Your task to perform on an android device: What's the weather? Image 0: 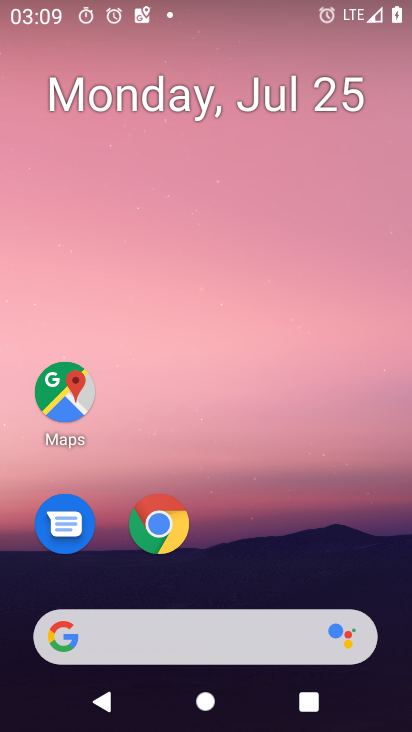
Step 0: drag from (256, 593) to (269, 16)
Your task to perform on an android device: What's the weather? Image 1: 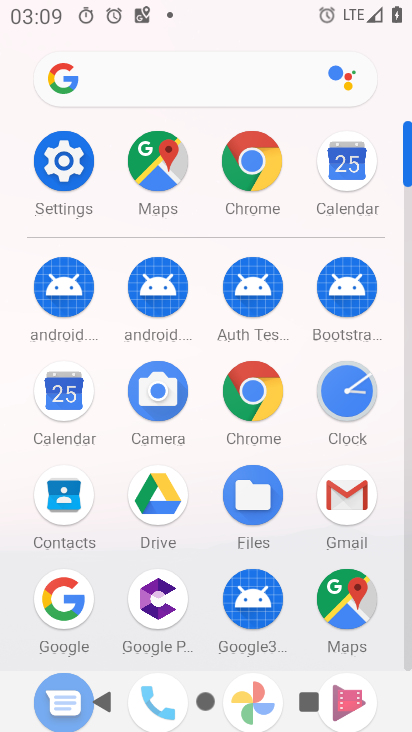
Step 1: click (61, 598)
Your task to perform on an android device: What's the weather? Image 2: 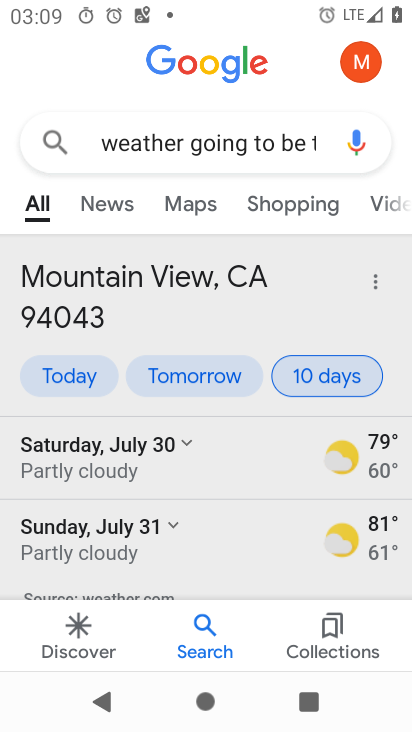
Step 2: click (302, 139)
Your task to perform on an android device: What's the weather? Image 3: 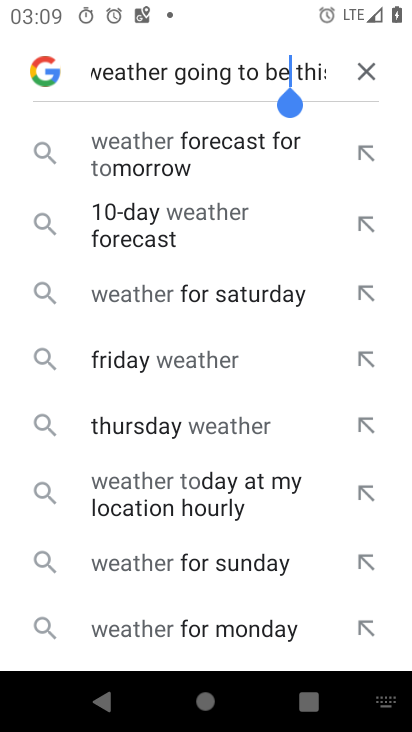
Step 3: click (366, 69)
Your task to perform on an android device: What's the weather? Image 4: 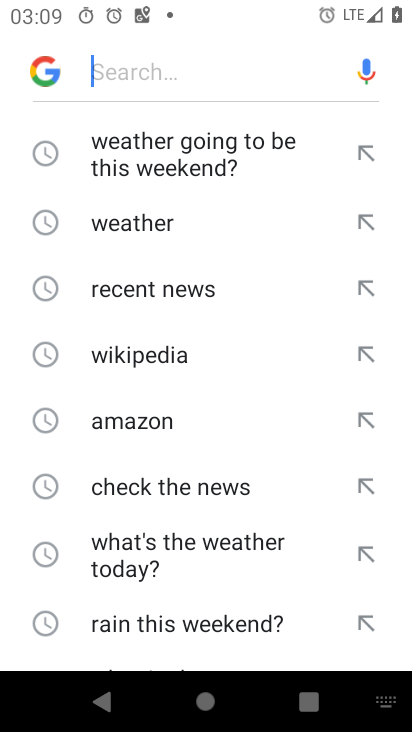
Step 4: click (132, 221)
Your task to perform on an android device: What's the weather? Image 5: 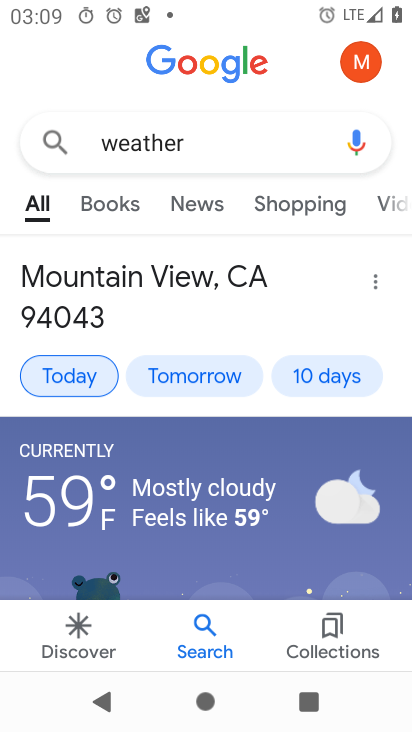
Step 5: task complete